Your task to perform on an android device: turn off improve location accuracy Image 0: 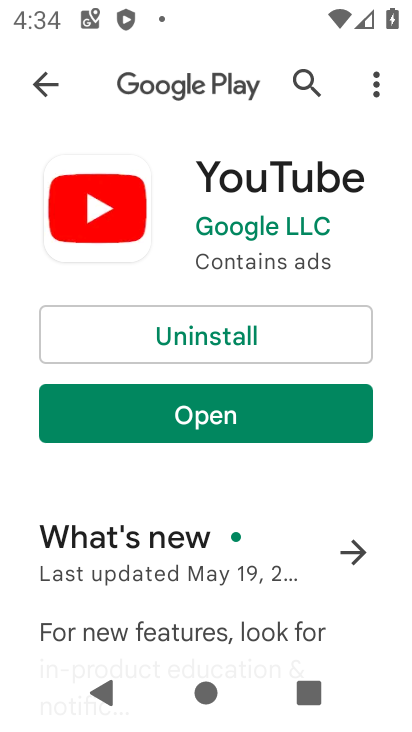
Step 0: press home button
Your task to perform on an android device: turn off improve location accuracy Image 1: 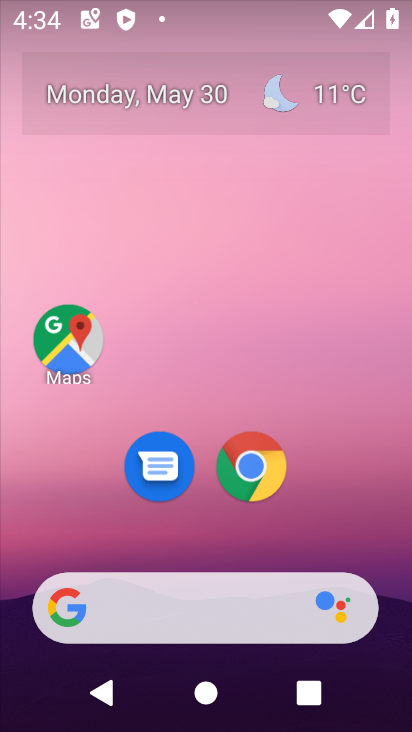
Step 1: drag from (355, 481) to (382, 47)
Your task to perform on an android device: turn off improve location accuracy Image 2: 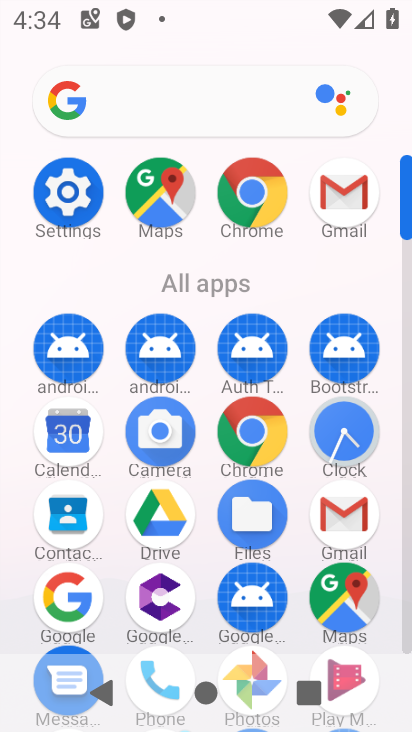
Step 2: click (79, 184)
Your task to perform on an android device: turn off improve location accuracy Image 3: 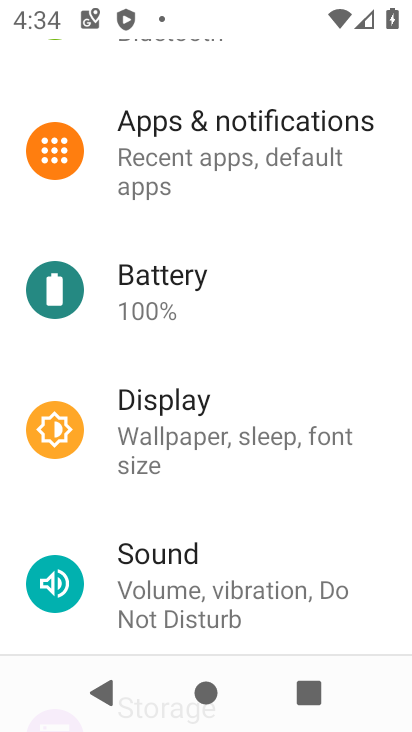
Step 3: drag from (273, 528) to (258, 161)
Your task to perform on an android device: turn off improve location accuracy Image 4: 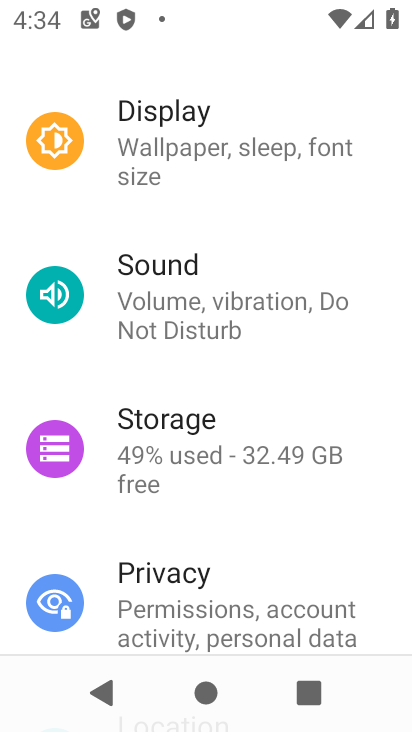
Step 4: drag from (238, 545) to (283, 112)
Your task to perform on an android device: turn off improve location accuracy Image 5: 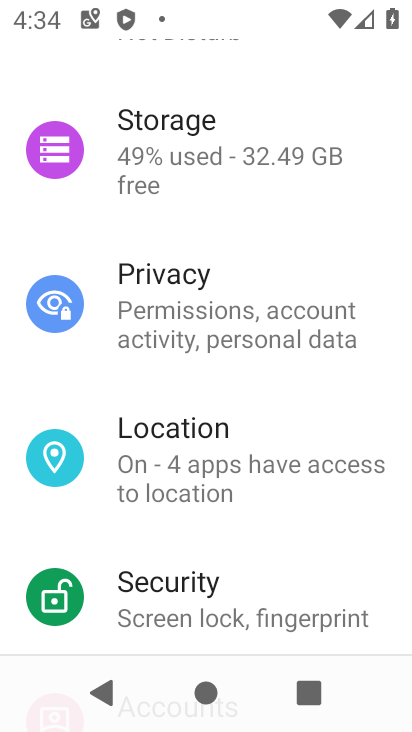
Step 5: click (209, 448)
Your task to perform on an android device: turn off improve location accuracy Image 6: 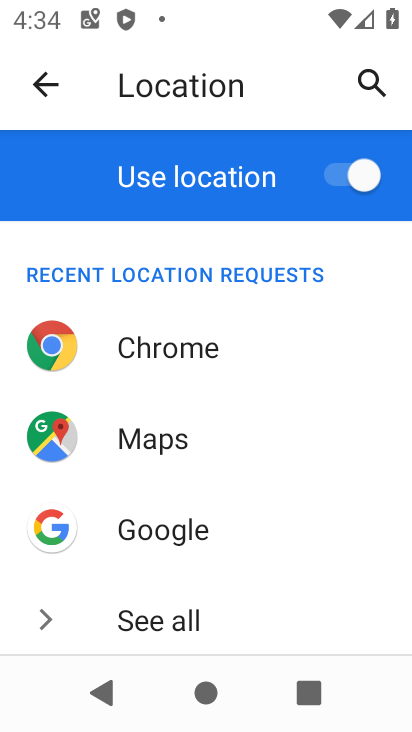
Step 6: drag from (223, 508) to (221, 121)
Your task to perform on an android device: turn off improve location accuracy Image 7: 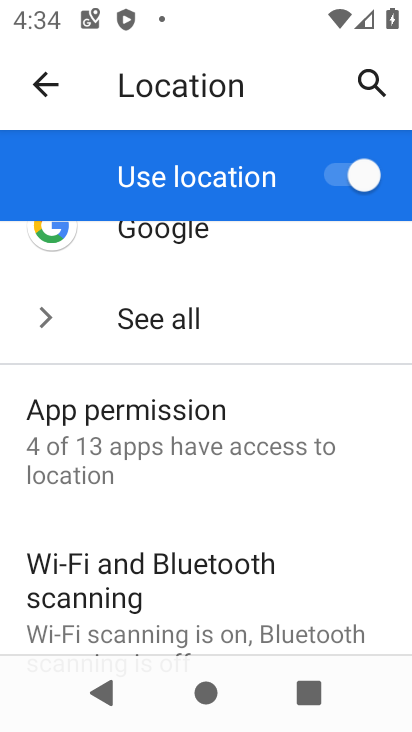
Step 7: drag from (258, 585) to (234, 223)
Your task to perform on an android device: turn off improve location accuracy Image 8: 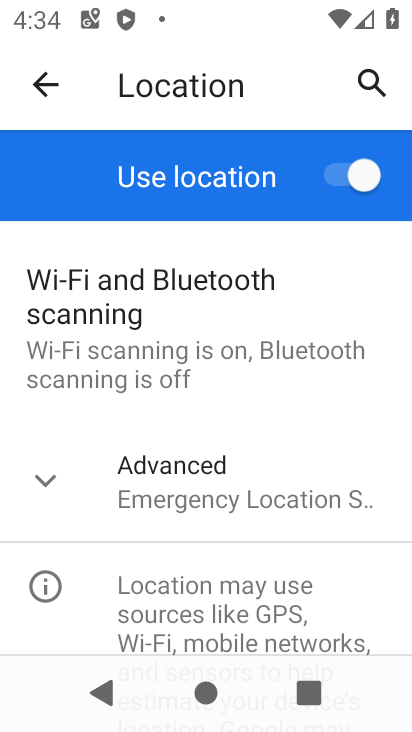
Step 8: click (192, 483)
Your task to perform on an android device: turn off improve location accuracy Image 9: 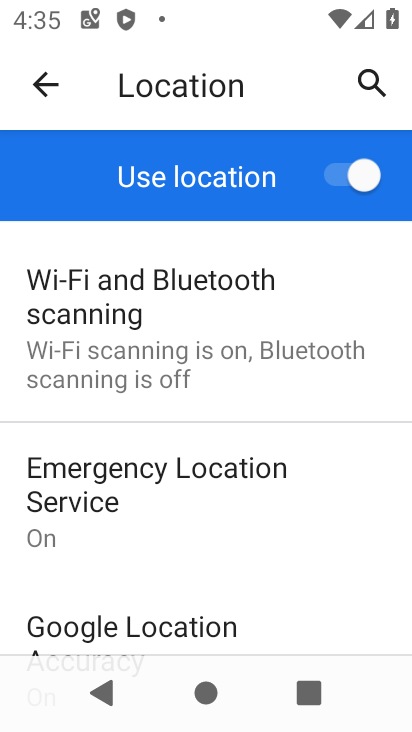
Step 9: drag from (192, 587) to (265, 212)
Your task to perform on an android device: turn off improve location accuracy Image 10: 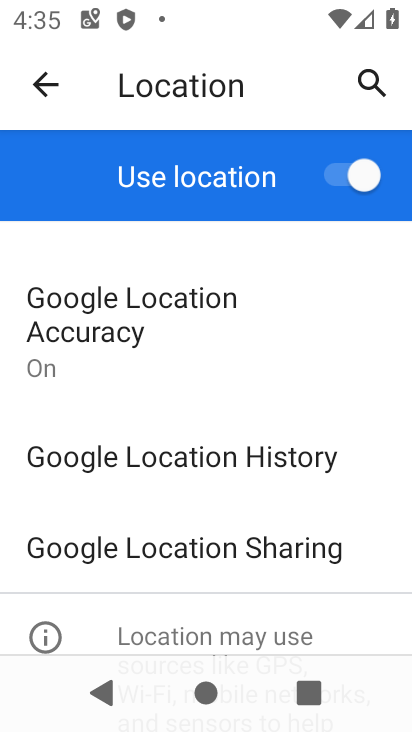
Step 10: click (180, 345)
Your task to perform on an android device: turn off improve location accuracy Image 11: 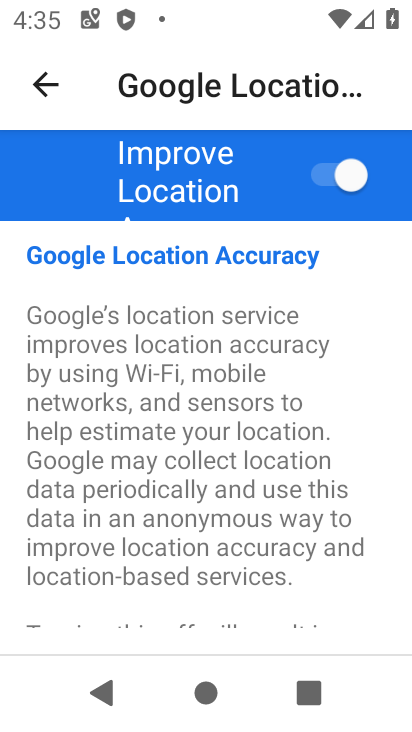
Step 11: click (336, 169)
Your task to perform on an android device: turn off improve location accuracy Image 12: 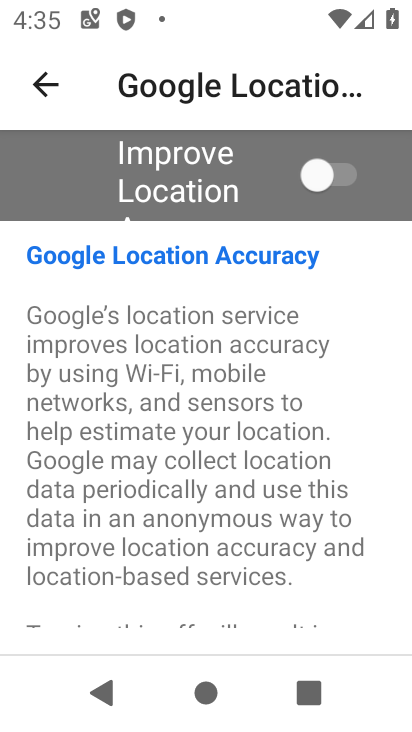
Step 12: task complete